Your task to perform on an android device: empty trash in google photos Image 0: 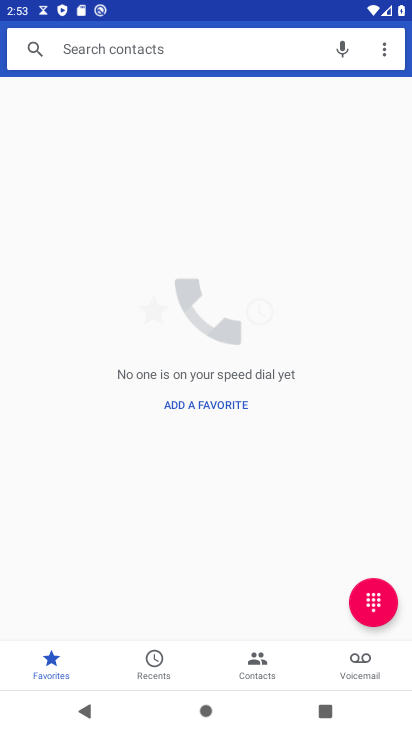
Step 0: press home button
Your task to perform on an android device: empty trash in google photos Image 1: 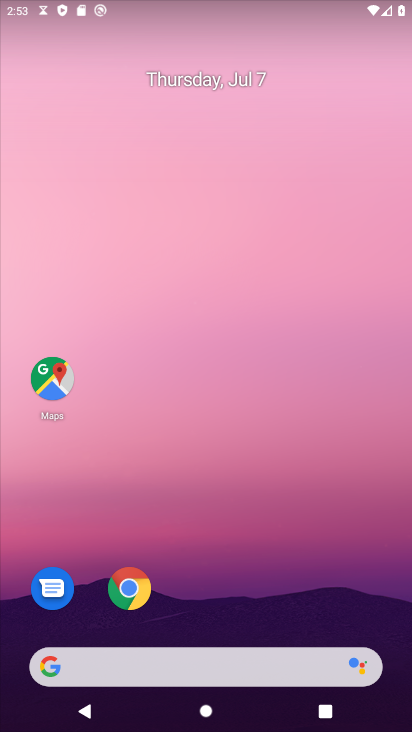
Step 1: drag from (225, 622) to (234, 195)
Your task to perform on an android device: empty trash in google photos Image 2: 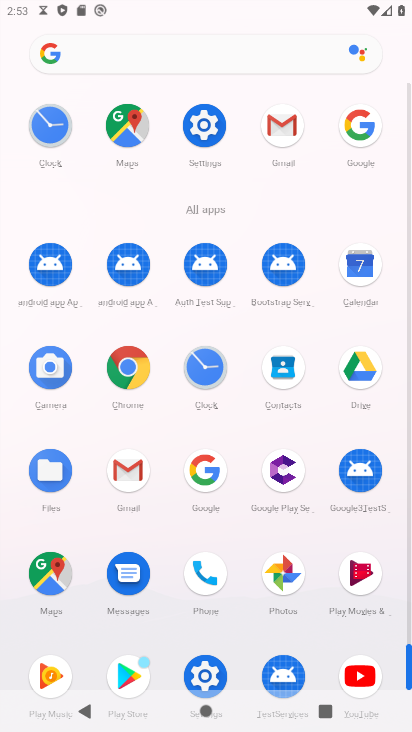
Step 2: click (283, 571)
Your task to perform on an android device: empty trash in google photos Image 3: 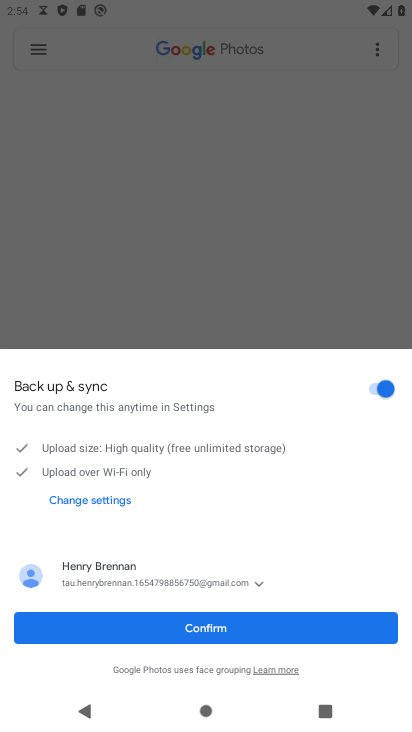
Step 3: click (266, 626)
Your task to perform on an android device: empty trash in google photos Image 4: 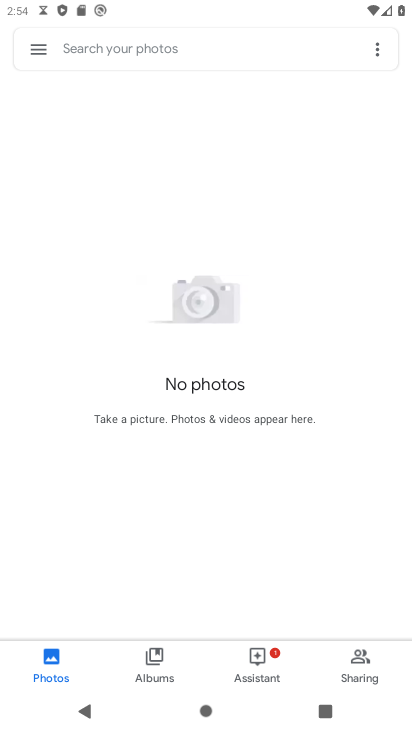
Step 4: click (42, 51)
Your task to perform on an android device: empty trash in google photos Image 5: 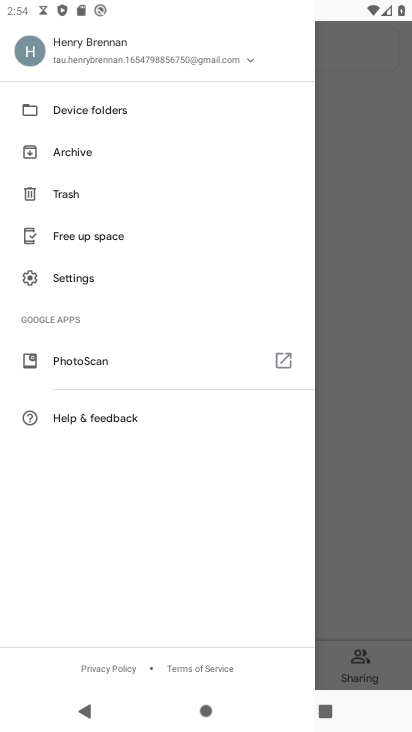
Step 5: click (61, 194)
Your task to perform on an android device: empty trash in google photos Image 6: 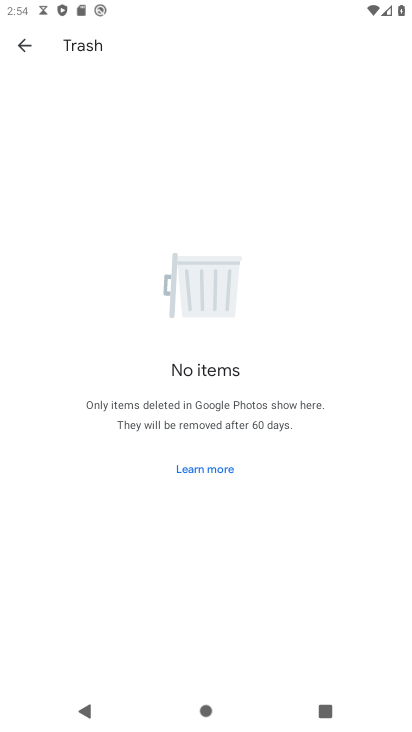
Step 6: task complete